Your task to perform on an android device: install app "Google News" Image 0: 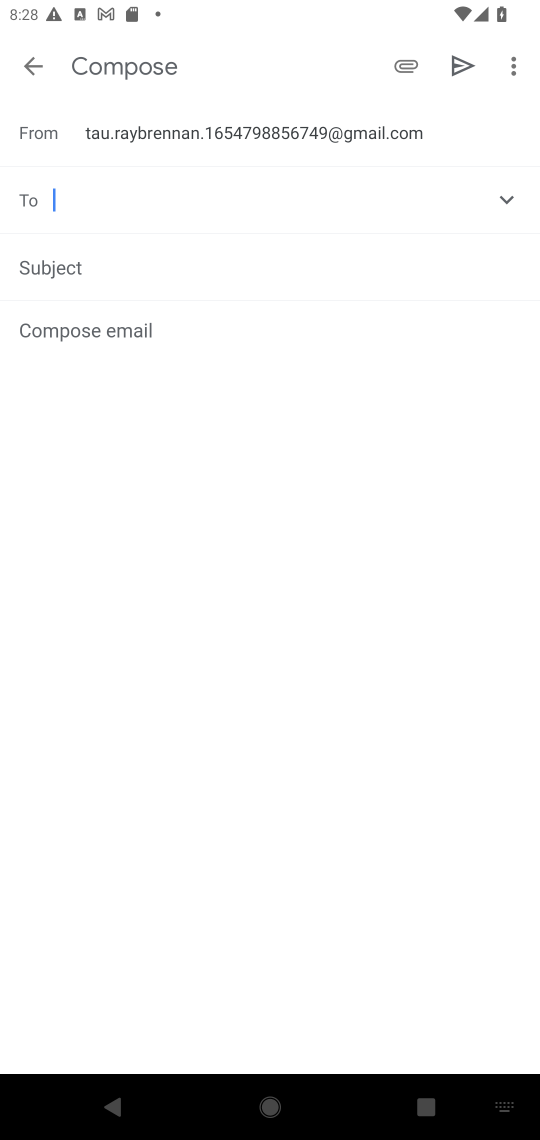
Step 0: press home button
Your task to perform on an android device: install app "Google News" Image 1: 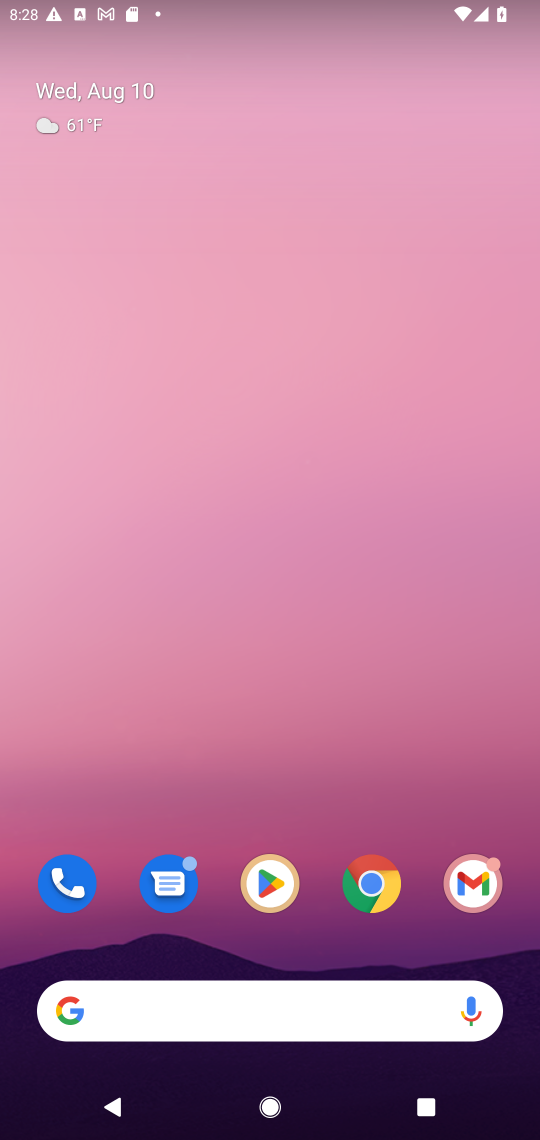
Step 1: click (249, 873)
Your task to perform on an android device: install app "Google News" Image 2: 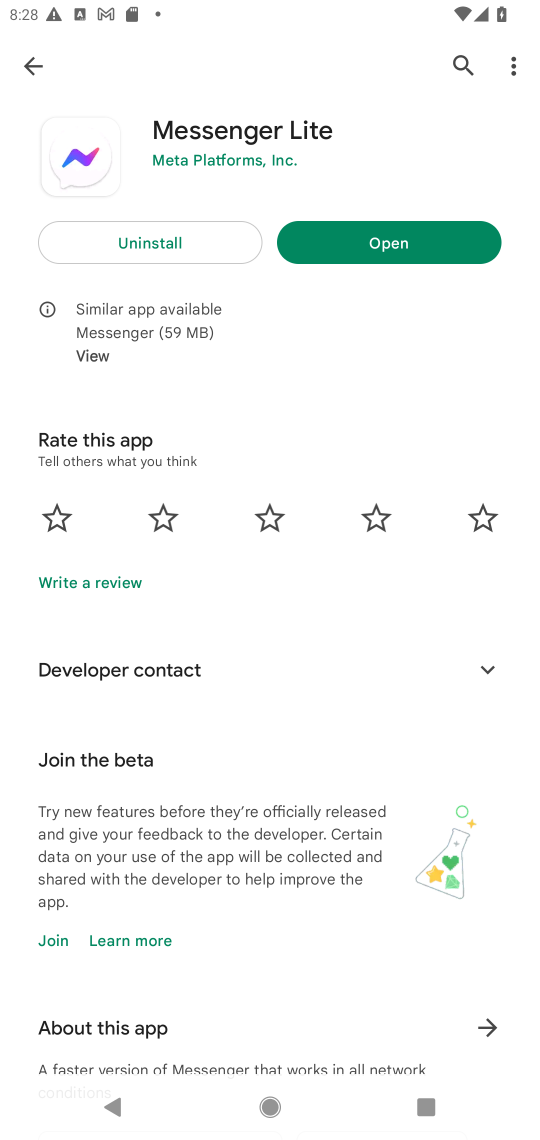
Step 2: click (452, 61)
Your task to perform on an android device: install app "Google News" Image 3: 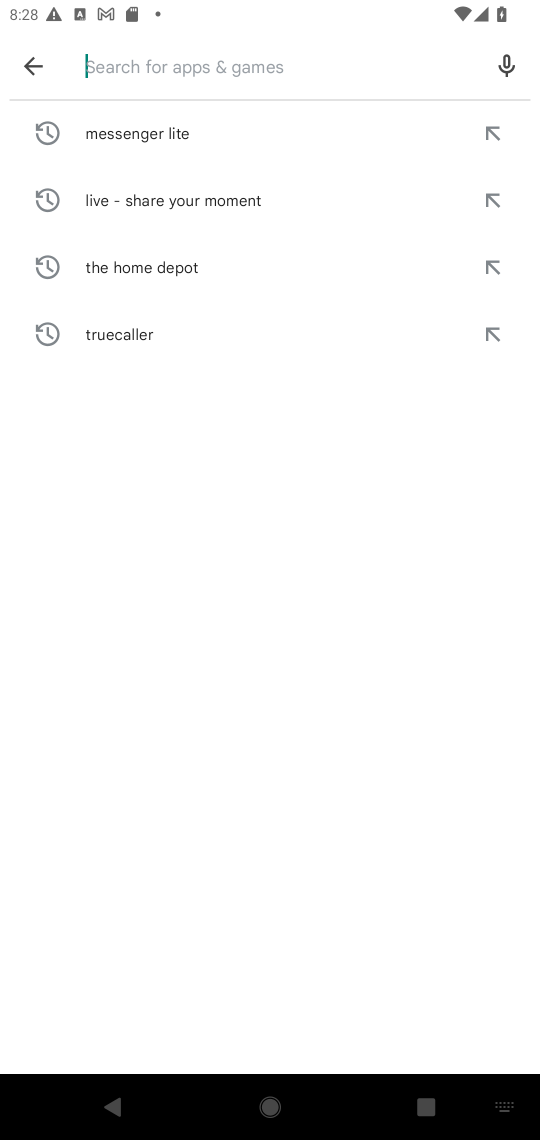
Step 3: type "Google News"
Your task to perform on an android device: install app "Google News" Image 4: 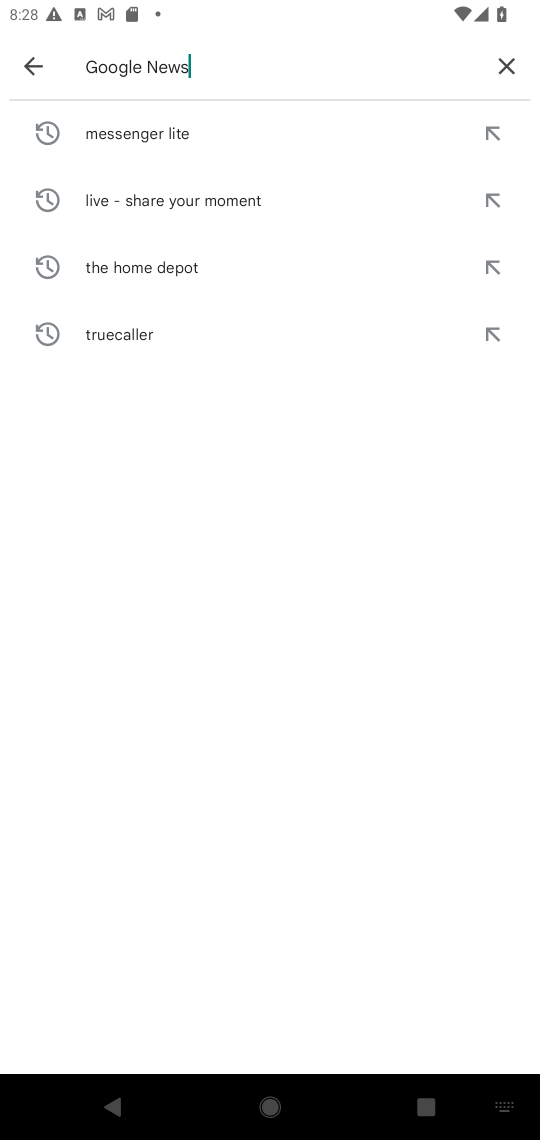
Step 4: type ""
Your task to perform on an android device: install app "Google News" Image 5: 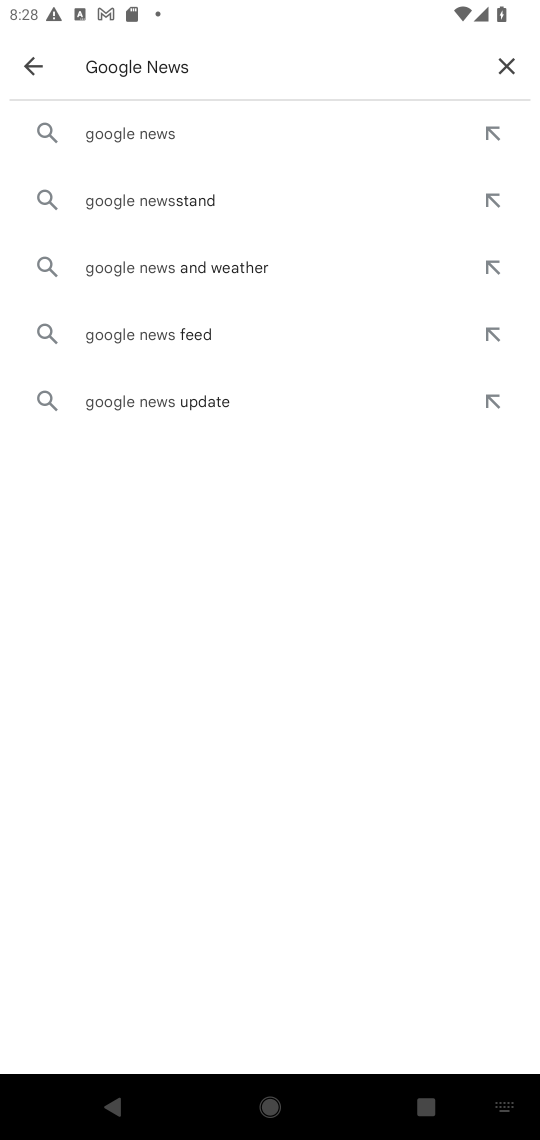
Step 5: click (277, 126)
Your task to perform on an android device: install app "Google News" Image 6: 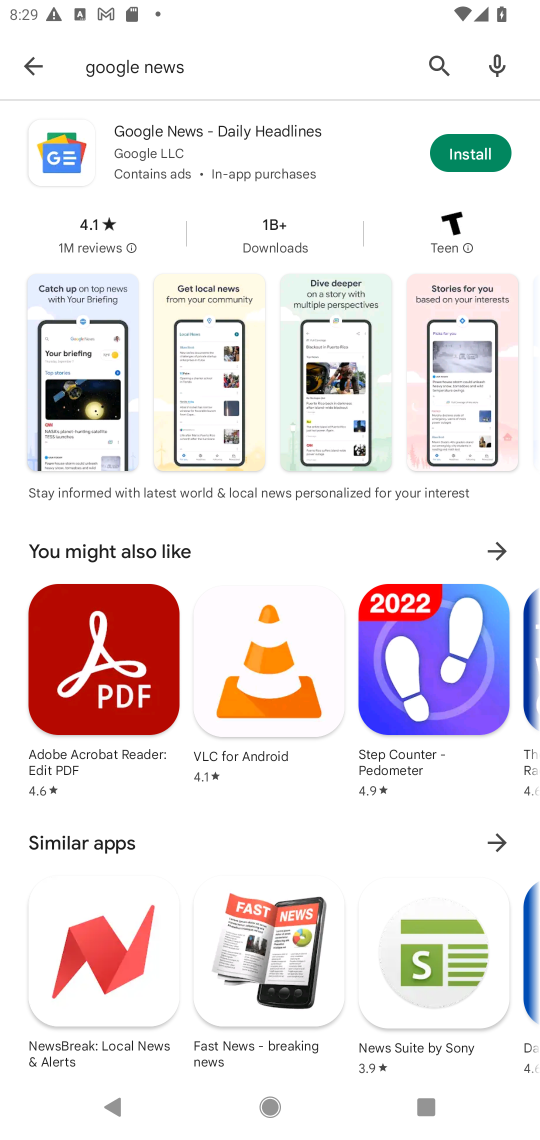
Step 6: click (482, 137)
Your task to perform on an android device: install app "Google News" Image 7: 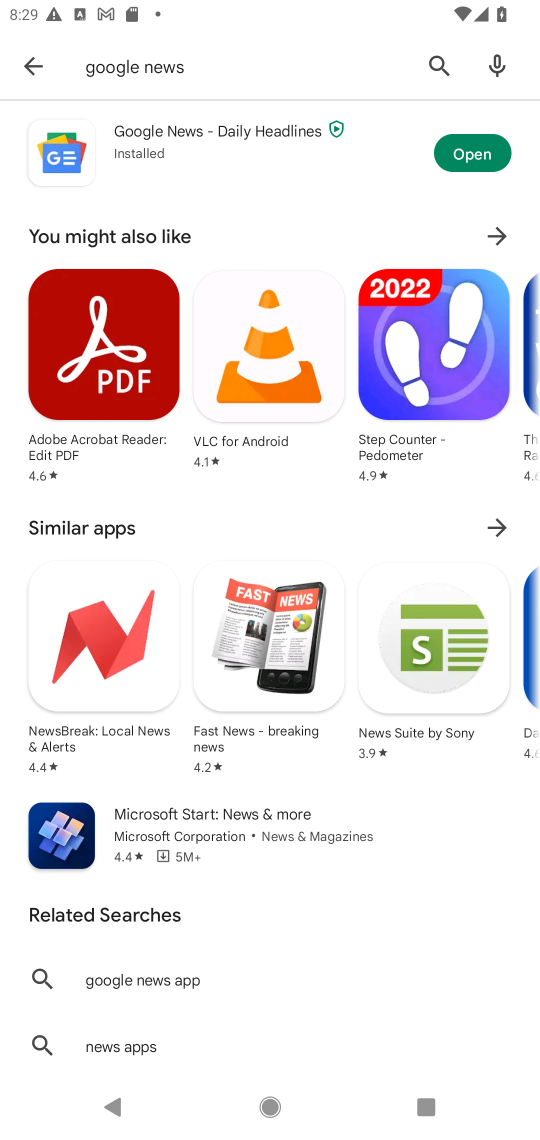
Step 7: task complete